Your task to perform on an android device: Go to Yahoo.com Image 0: 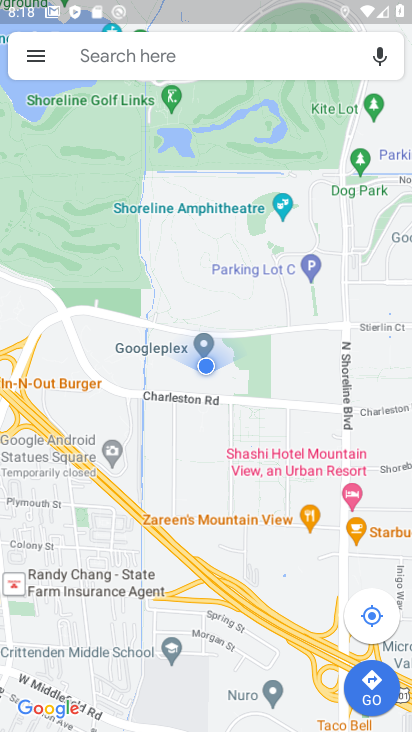
Step 0: press home button
Your task to perform on an android device: Go to Yahoo.com Image 1: 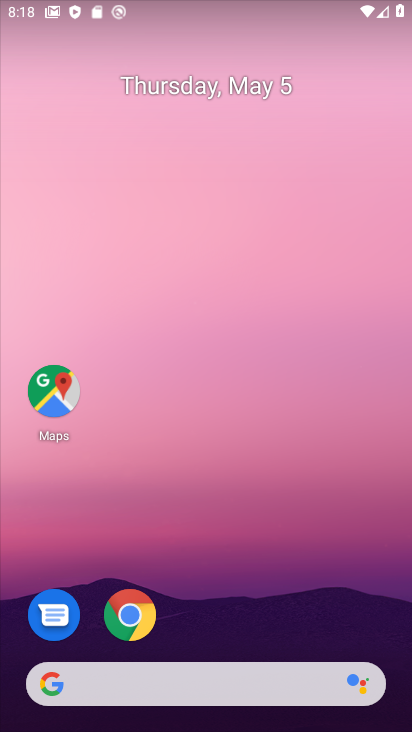
Step 1: click (120, 619)
Your task to perform on an android device: Go to Yahoo.com Image 2: 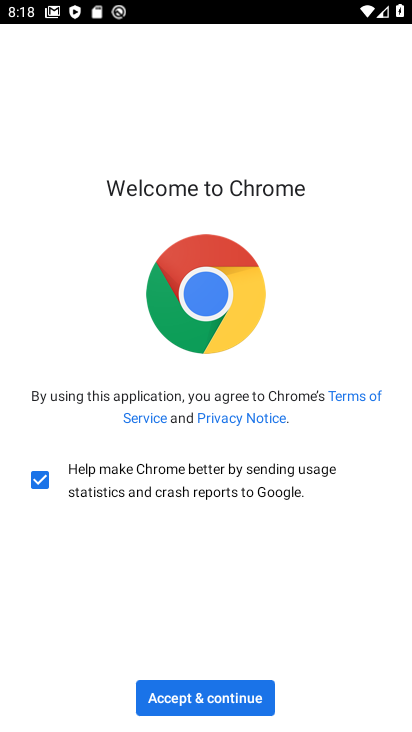
Step 2: click (228, 705)
Your task to perform on an android device: Go to Yahoo.com Image 3: 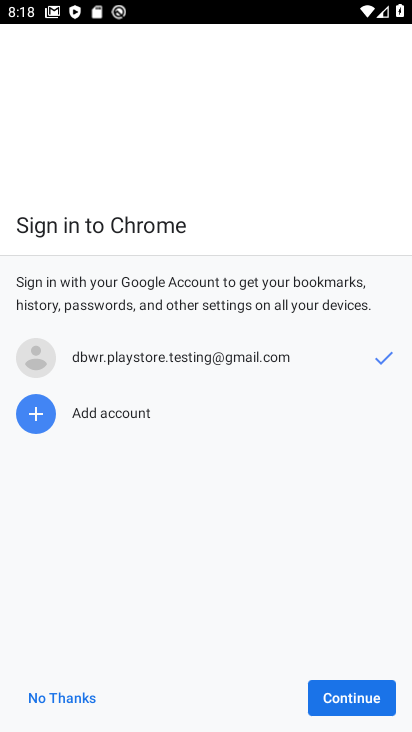
Step 3: click (317, 700)
Your task to perform on an android device: Go to Yahoo.com Image 4: 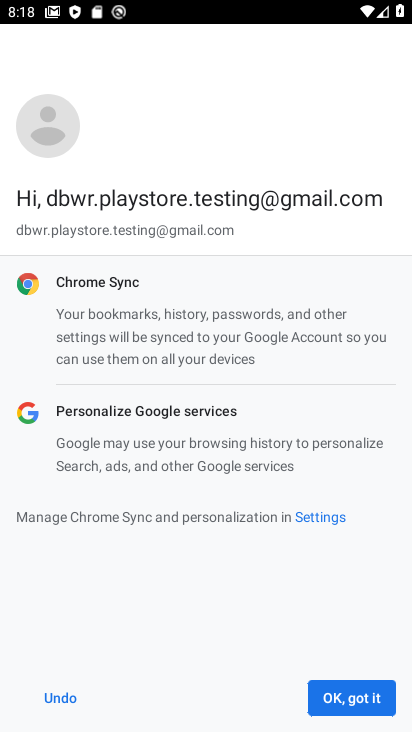
Step 4: click (315, 695)
Your task to perform on an android device: Go to Yahoo.com Image 5: 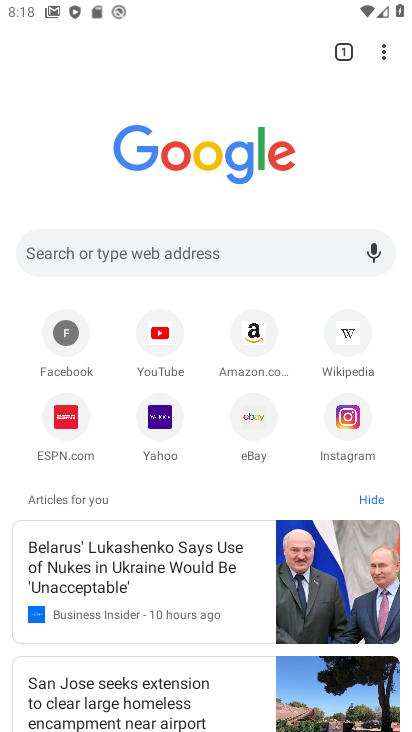
Step 5: click (155, 432)
Your task to perform on an android device: Go to Yahoo.com Image 6: 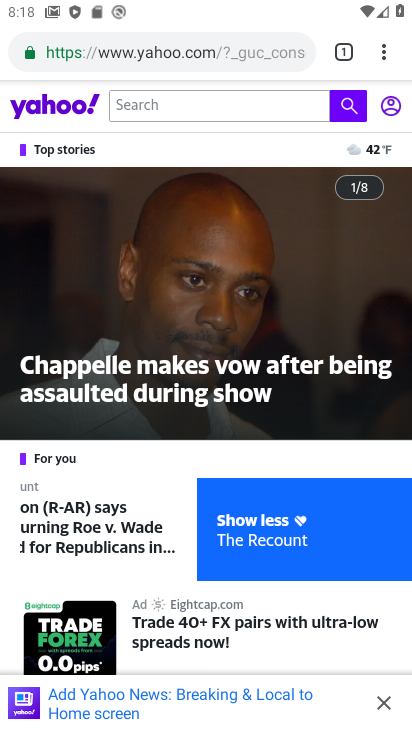
Step 6: task complete